Your task to perform on an android device: How much does a 2 bedroom apartment rent for in Denver? Image 0: 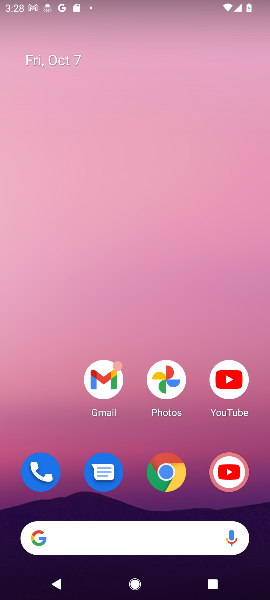
Step 0: click (168, 470)
Your task to perform on an android device: How much does a 2 bedroom apartment rent for in Denver? Image 1: 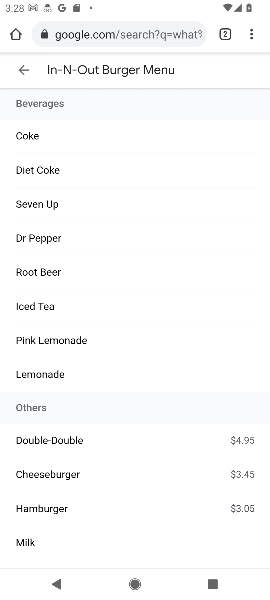
Step 1: click (144, 35)
Your task to perform on an android device: How much does a 2 bedroom apartment rent for in Denver? Image 2: 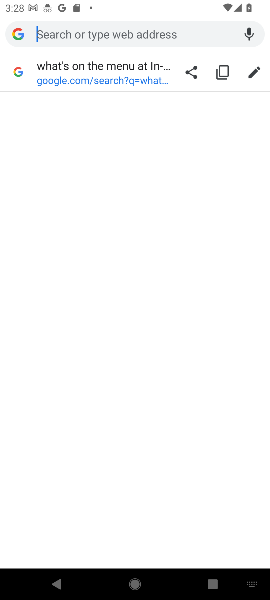
Step 2: type "How much does a 2 bedroom apartment rent for in Denver?"
Your task to perform on an android device: How much does a 2 bedroom apartment rent for in Denver? Image 3: 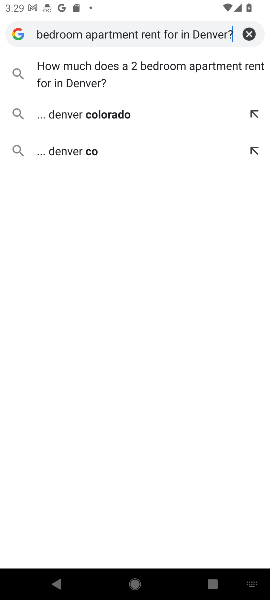
Step 3: click (95, 82)
Your task to perform on an android device: How much does a 2 bedroom apartment rent for in Denver? Image 4: 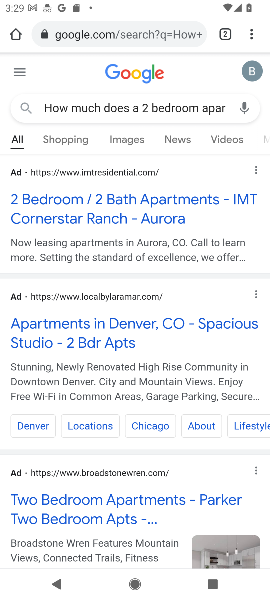
Step 4: drag from (135, 515) to (144, 374)
Your task to perform on an android device: How much does a 2 bedroom apartment rent for in Denver? Image 5: 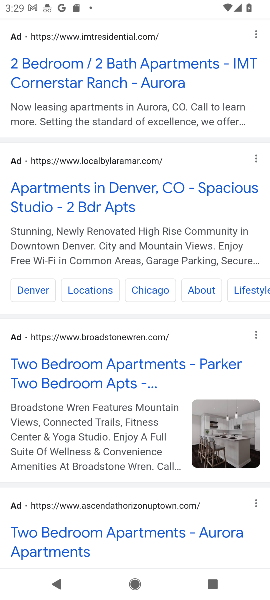
Step 5: drag from (117, 509) to (126, 379)
Your task to perform on an android device: How much does a 2 bedroom apartment rent for in Denver? Image 6: 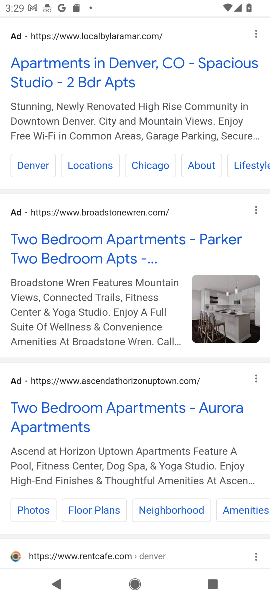
Step 6: drag from (105, 466) to (127, 287)
Your task to perform on an android device: How much does a 2 bedroom apartment rent for in Denver? Image 7: 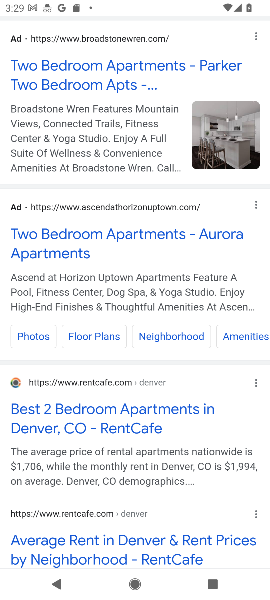
Step 7: click (113, 431)
Your task to perform on an android device: How much does a 2 bedroom apartment rent for in Denver? Image 8: 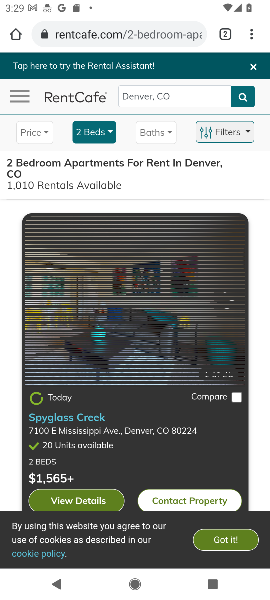
Step 8: task complete